Your task to perform on an android device: What is the news today? Image 0: 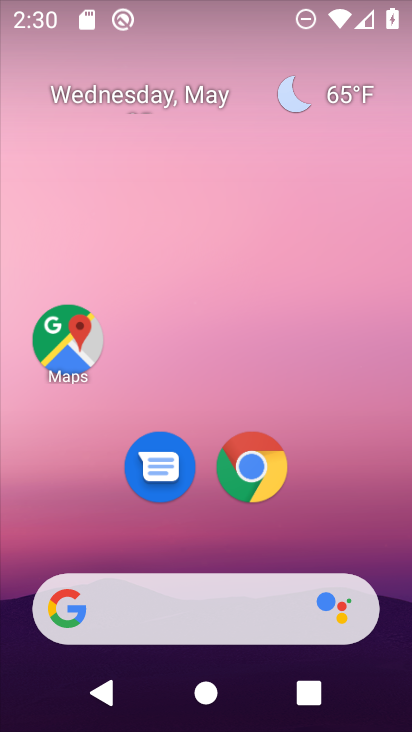
Step 0: drag from (310, 524) to (349, 211)
Your task to perform on an android device: What is the news today? Image 1: 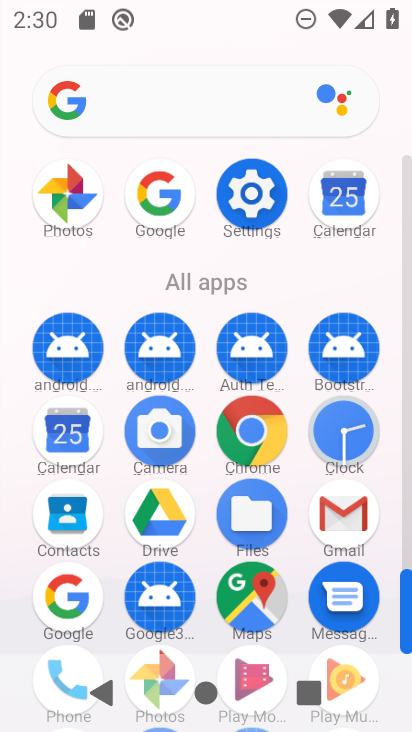
Step 1: click (165, 186)
Your task to perform on an android device: What is the news today? Image 2: 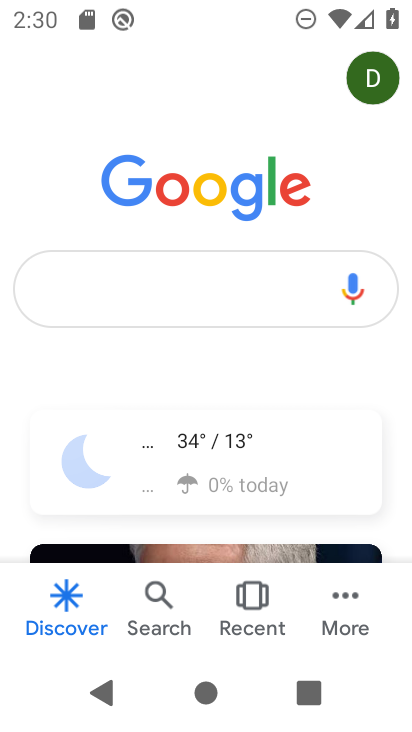
Step 2: click (157, 292)
Your task to perform on an android device: What is the news today? Image 3: 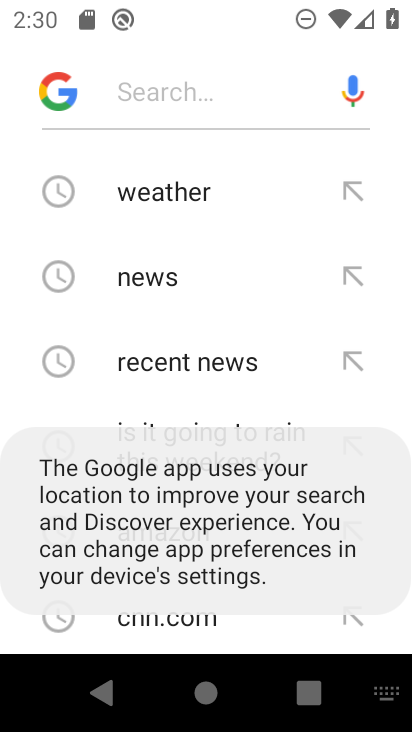
Step 3: click (143, 88)
Your task to perform on an android device: What is the news today? Image 4: 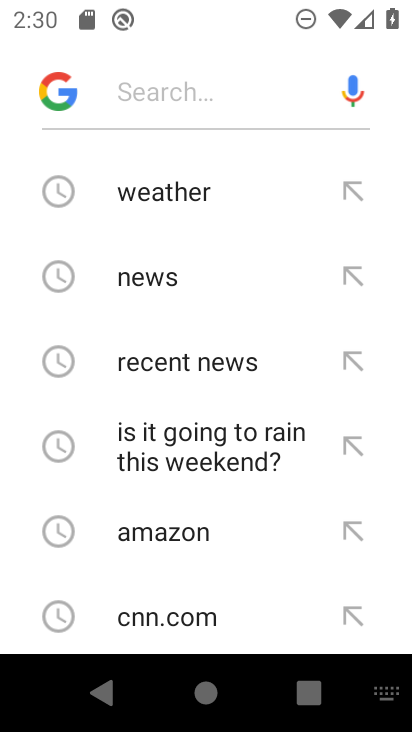
Step 4: type "What is the news today?"
Your task to perform on an android device: What is the news today? Image 5: 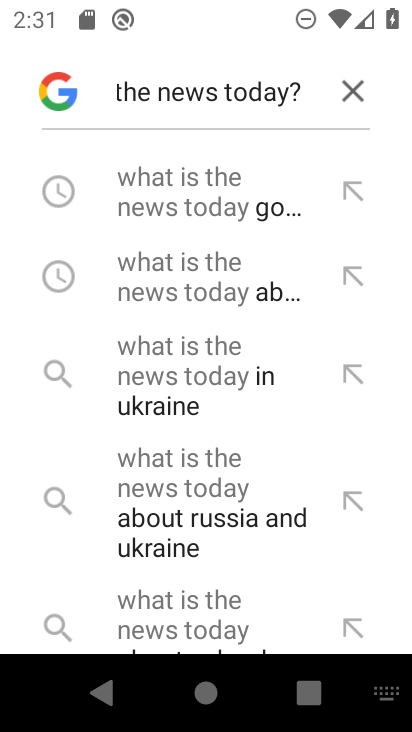
Step 5: click (184, 190)
Your task to perform on an android device: What is the news today? Image 6: 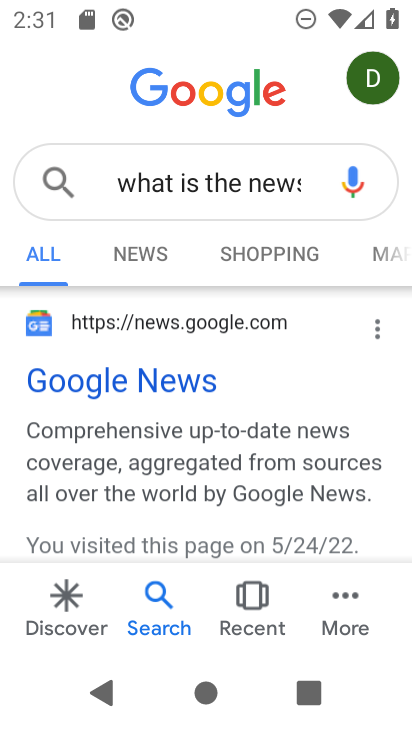
Step 6: task complete